Your task to perform on an android device: Is it going to rain today? Image 0: 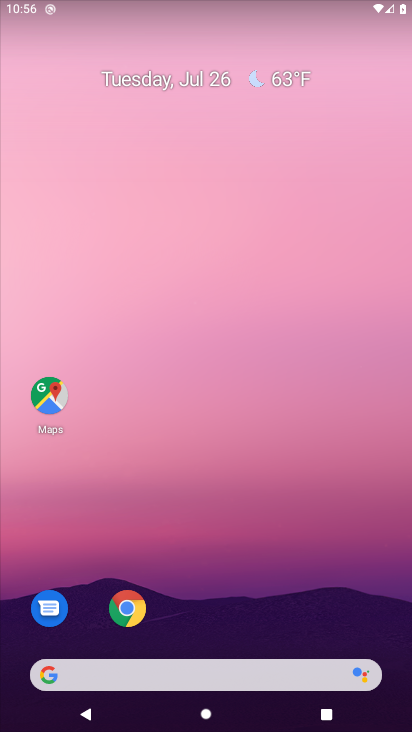
Step 0: press home button
Your task to perform on an android device: Is it going to rain today? Image 1: 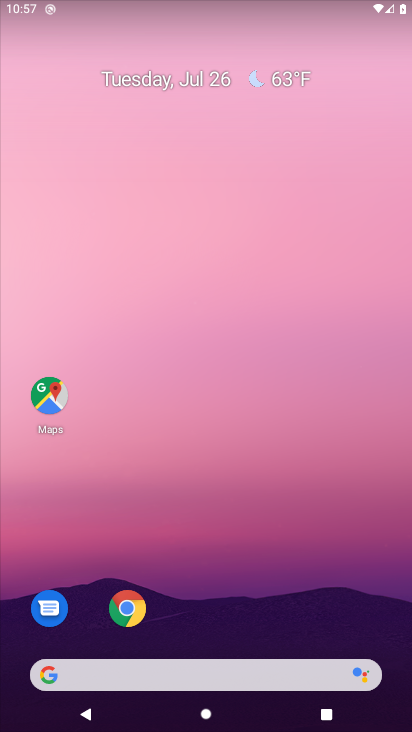
Step 1: click (44, 677)
Your task to perform on an android device: Is it going to rain today? Image 2: 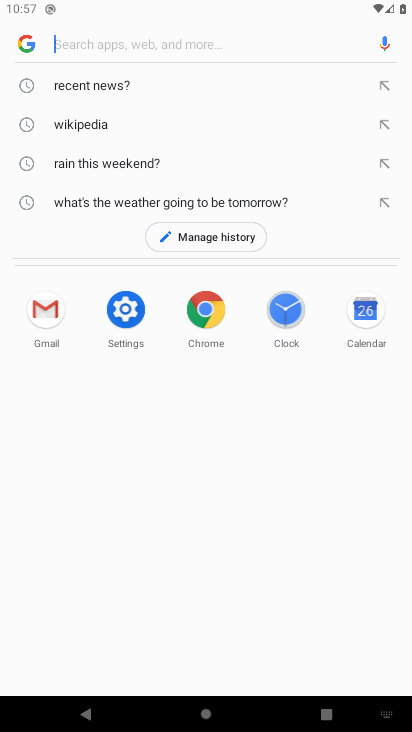
Step 2: type "Is it going to rain today?"
Your task to perform on an android device: Is it going to rain today? Image 3: 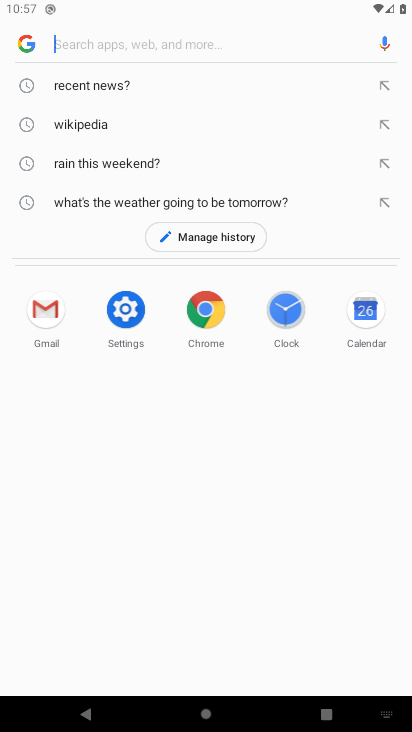
Step 3: click (85, 41)
Your task to perform on an android device: Is it going to rain today? Image 4: 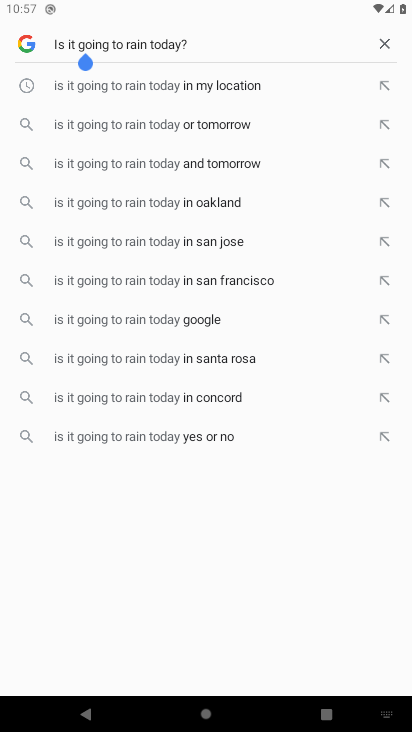
Step 4: press enter
Your task to perform on an android device: Is it going to rain today? Image 5: 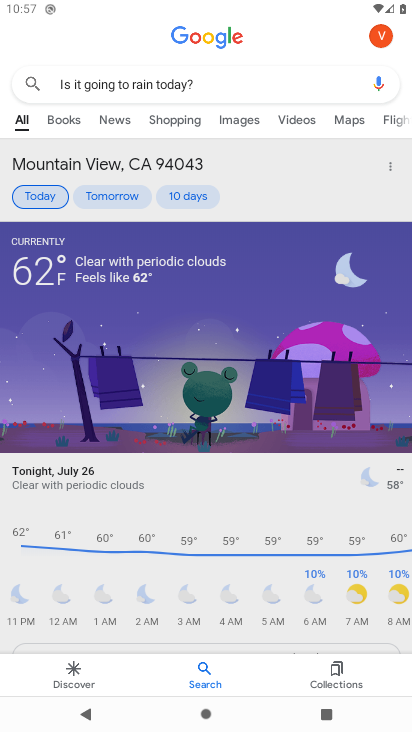
Step 5: task complete